Your task to perform on an android device: toggle improve location accuracy Image 0: 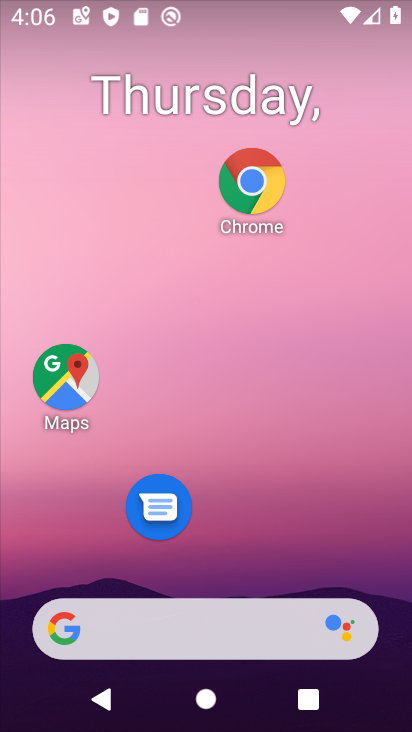
Step 0: drag from (266, 625) to (236, 251)
Your task to perform on an android device: toggle improve location accuracy Image 1: 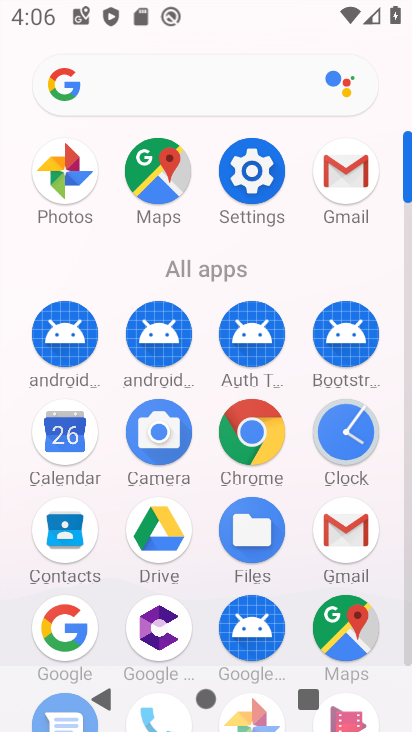
Step 1: click (253, 164)
Your task to perform on an android device: toggle improve location accuracy Image 2: 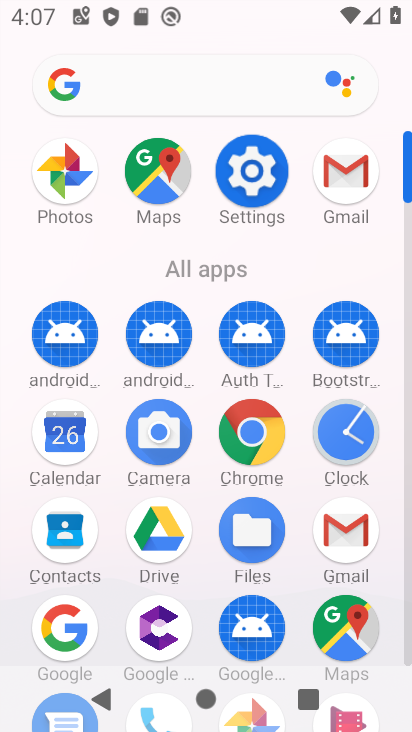
Step 2: click (256, 165)
Your task to perform on an android device: toggle improve location accuracy Image 3: 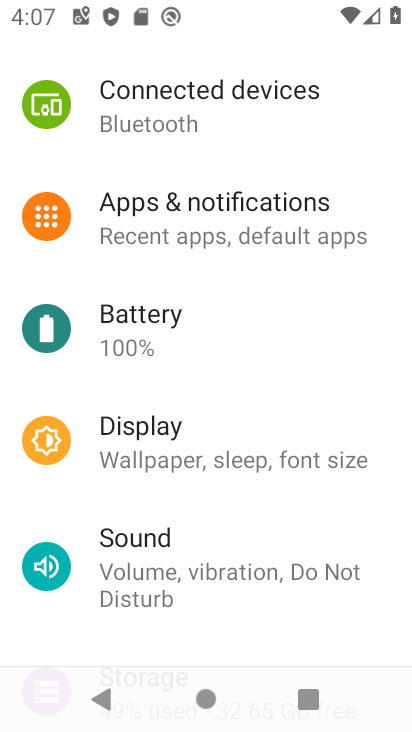
Step 3: drag from (259, 244) to (270, 156)
Your task to perform on an android device: toggle improve location accuracy Image 4: 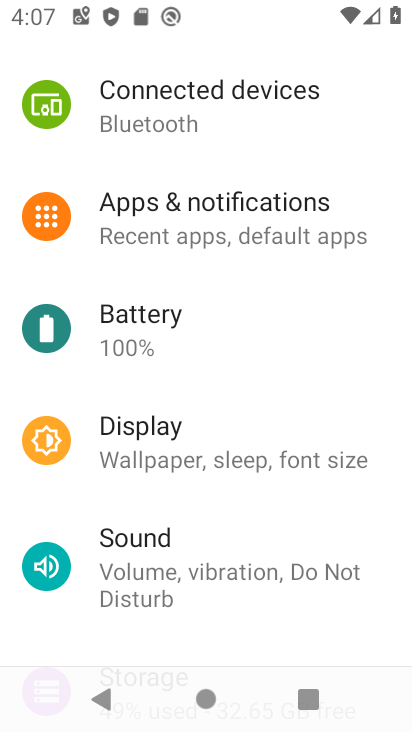
Step 4: drag from (243, 464) to (213, 151)
Your task to perform on an android device: toggle improve location accuracy Image 5: 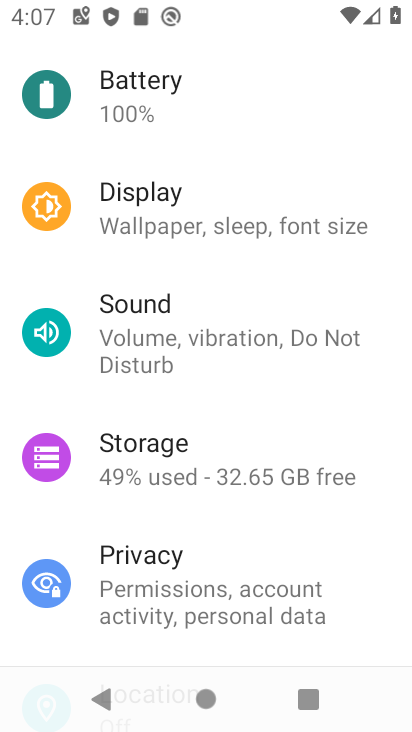
Step 5: drag from (232, 429) to (254, 232)
Your task to perform on an android device: toggle improve location accuracy Image 6: 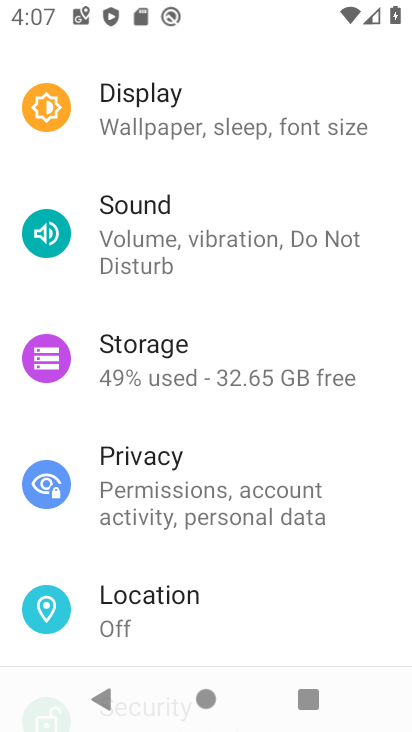
Step 6: drag from (215, 453) to (215, 138)
Your task to perform on an android device: toggle improve location accuracy Image 7: 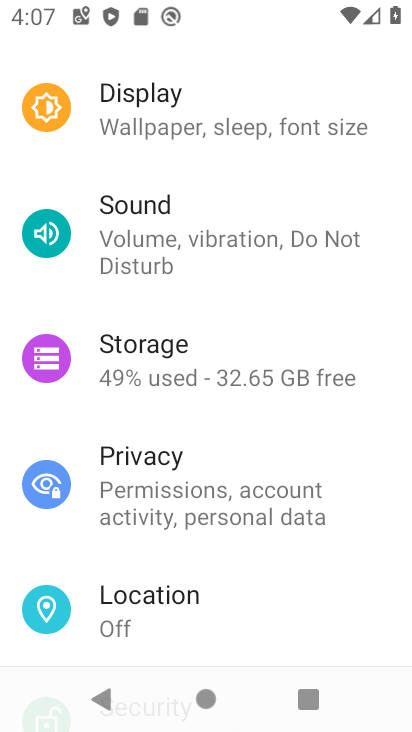
Step 7: click (245, 188)
Your task to perform on an android device: toggle improve location accuracy Image 8: 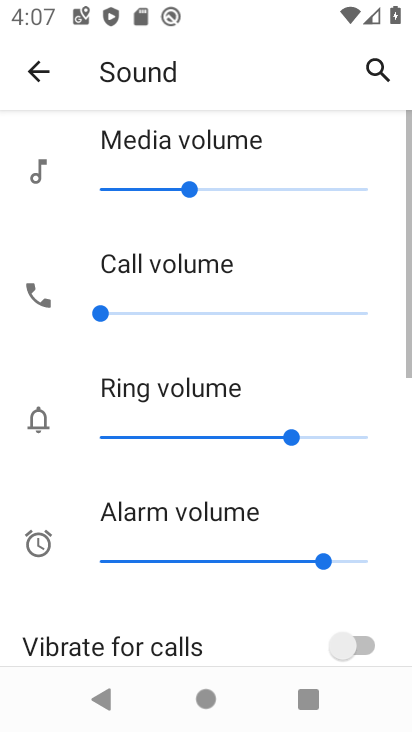
Step 8: click (125, 596)
Your task to perform on an android device: toggle improve location accuracy Image 9: 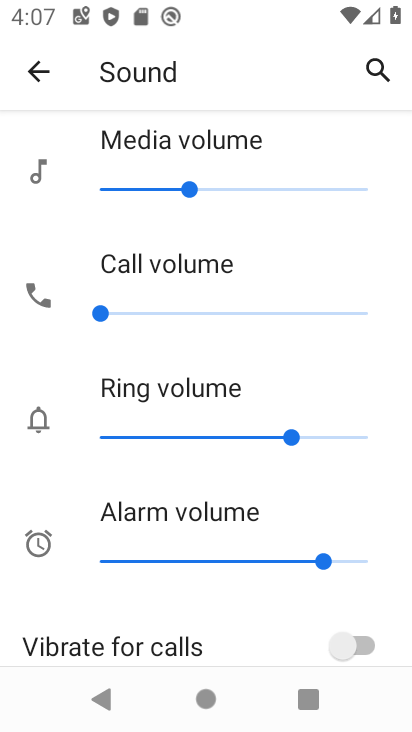
Step 9: click (53, 85)
Your task to perform on an android device: toggle improve location accuracy Image 10: 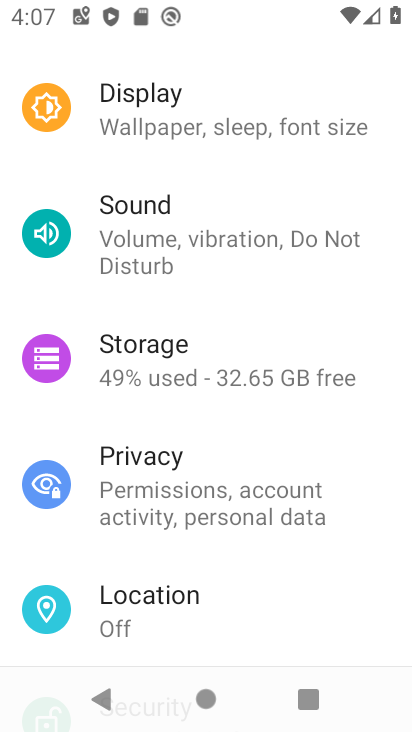
Step 10: click (127, 586)
Your task to perform on an android device: toggle improve location accuracy Image 11: 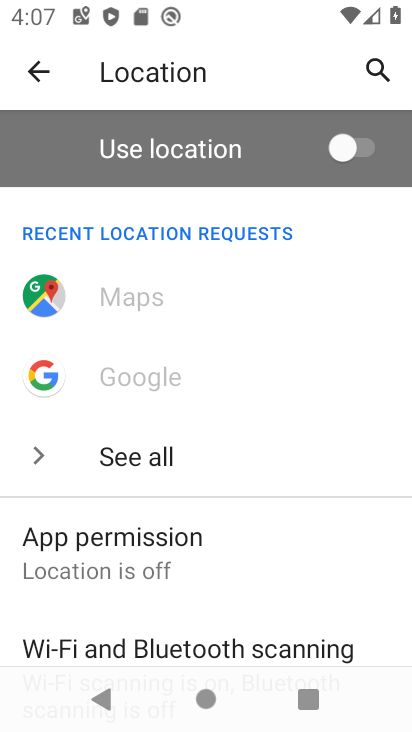
Step 11: drag from (171, 209) to (171, 68)
Your task to perform on an android device: toggle improve location accuracy Image 12: 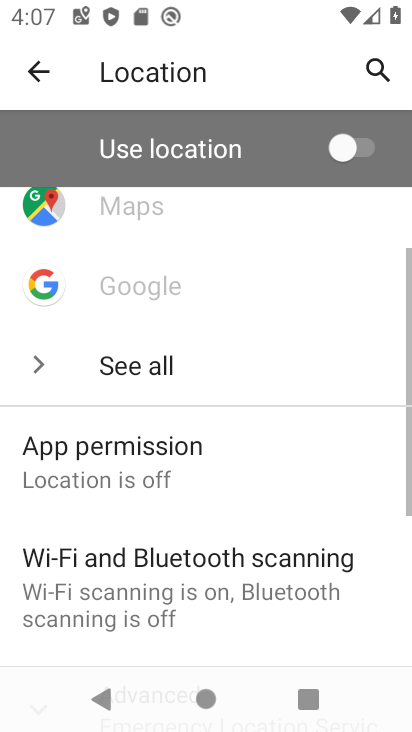
Step 12: drag from (213, 383) to (213, 18)
Your task to perform on an android device: toggle improve location accuracy Image 13: 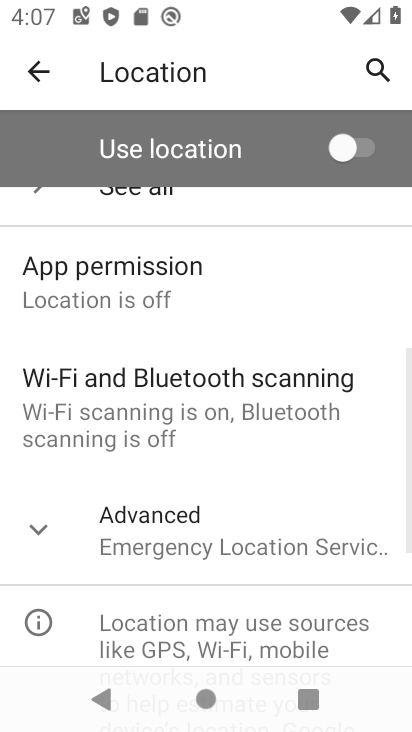
Step 13: click (350, 140)
Your task to perform on an android device: toggle improve location accuracy Image 14: 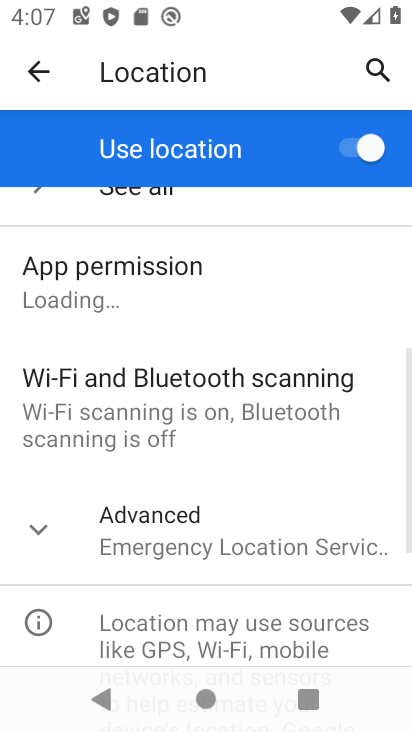
Step 14: click (368, 140)
Your task to perform on an android device: toggle improve location accuracy Image 15: 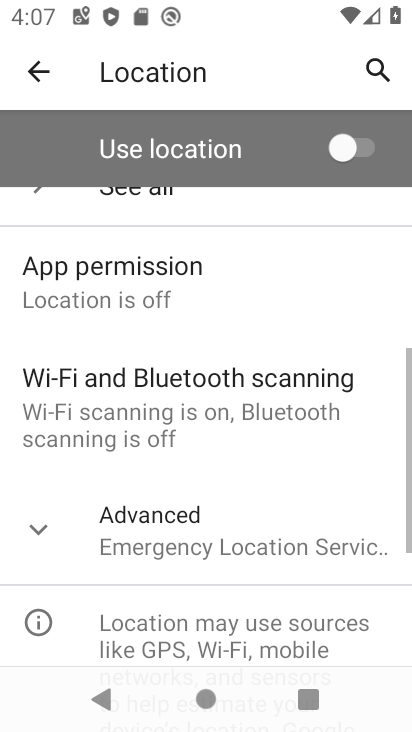
Step 15: drag from (163, 538) to (170, 117)
Your task to perform on an android device: toggle improve location accuracy Image 16: 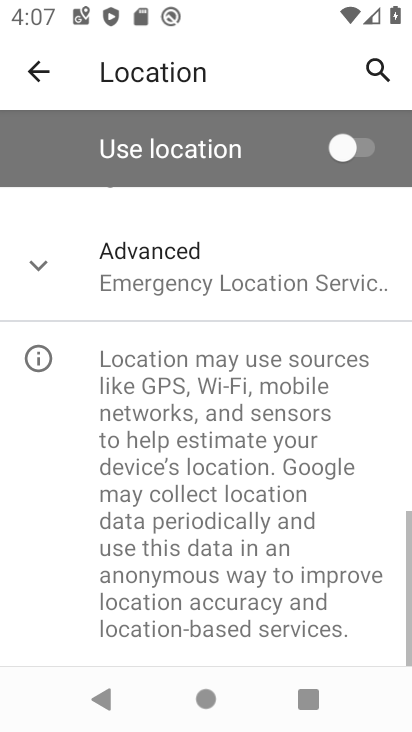
Step 16: drag from (218, 452) to (238, 129)
Your task to perform on an android device: toggle improve location accuracy Image 17: 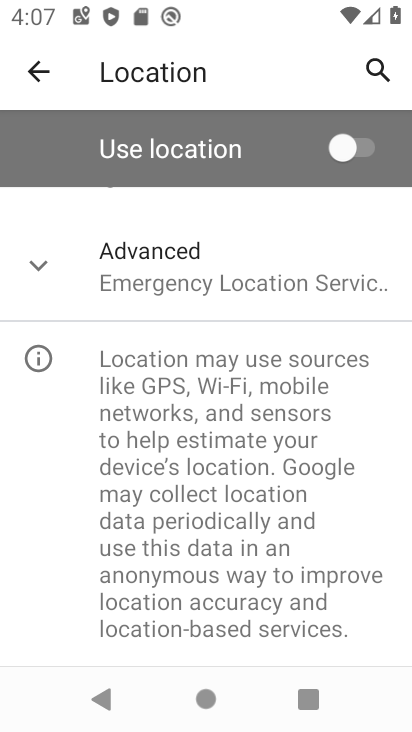
Step 17: click (181, 293)
Your task to perform on an android device: toggle improve location accuracy Image 18: 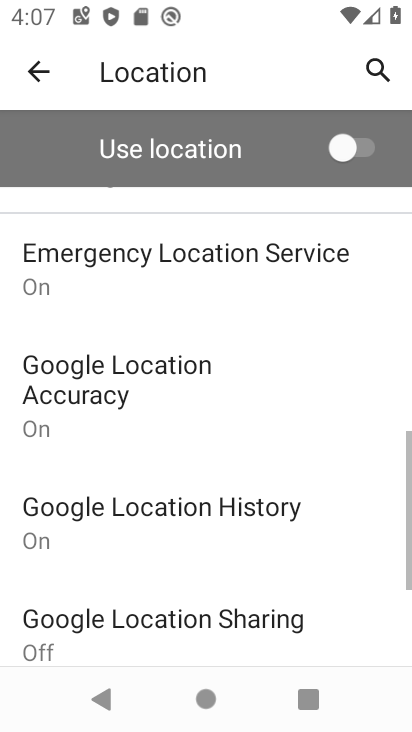
Step 18: click (181, 293)
Your task to perform on an android device: toggle improve location accuracy Image 19: 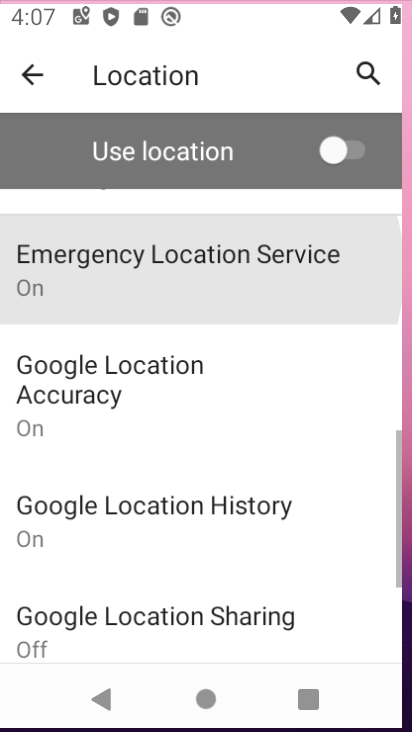
Step 19: click (176, 295)
Your task to perform on an android device: toggle improve location accuracy Image 20: 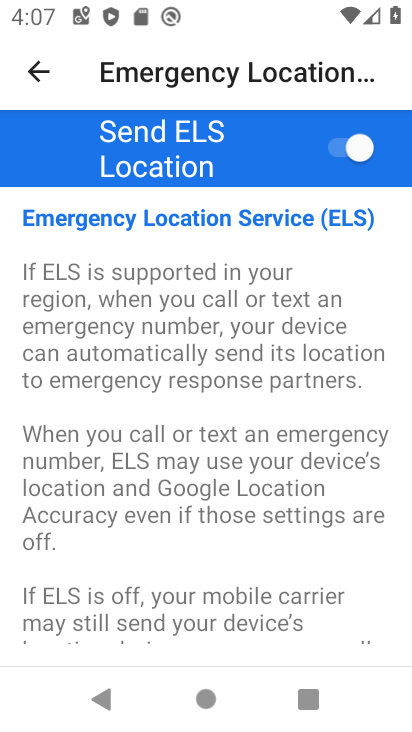
Step 20: click (45, 71)
Your task to perform on an android device: toggle improve location accuracy Image 21: 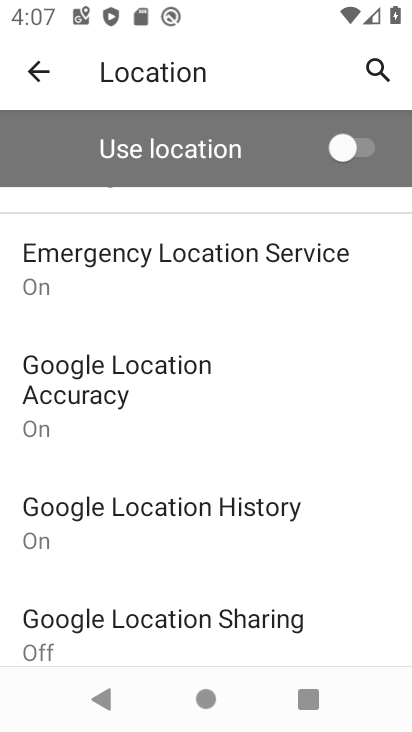
Step 21: drag from (169, 584) to (206, 252)
Your task to perform on an android device: toggle improve location accuracy Image 22: 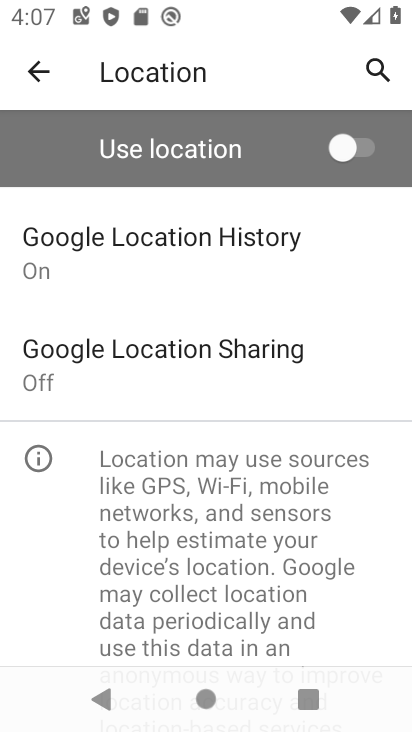
Step 22: drag from (155, 244) to (214, 557)
Your task to perform on an android device: toggle improve location accuracy Image 23: 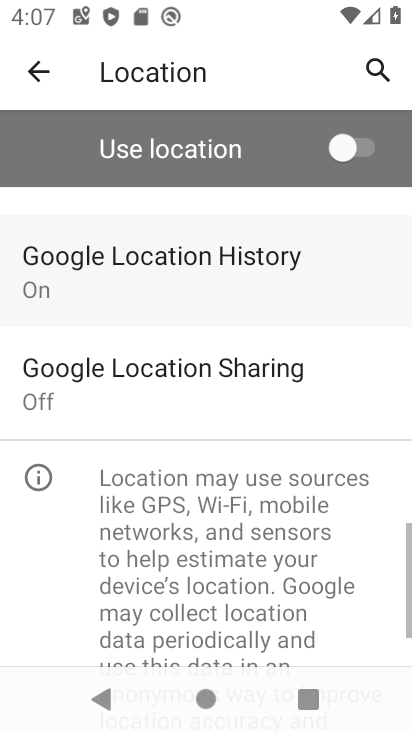
Step 23: drag from (209, 522) to (176, 616)
Your task to perform on an android device: toggle improve location accuracy Image 24: 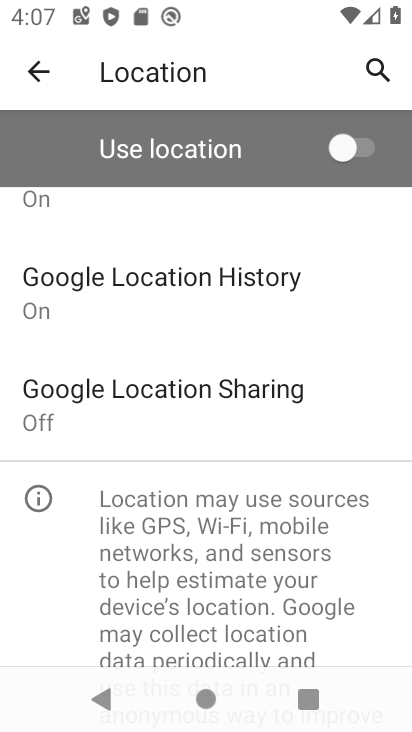
Step 24: click (188, 558)
Your task to perform on an android device: toggle improve location accuracy Image 25: 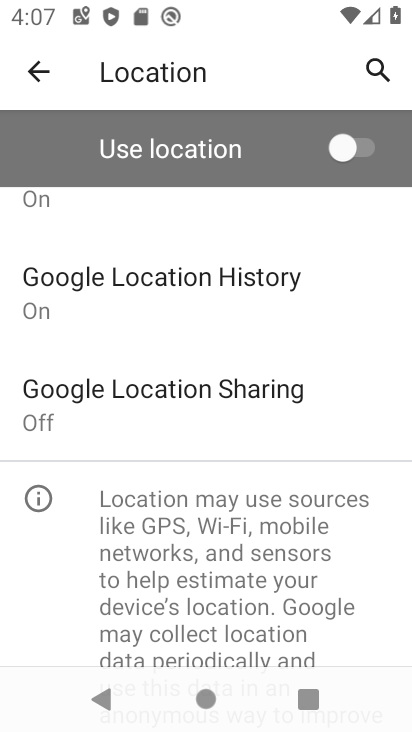
Step 25: drag from (163, 379) to (190, 491)
Your task to perform on an android device: toggle improve location accuracy Image 26: 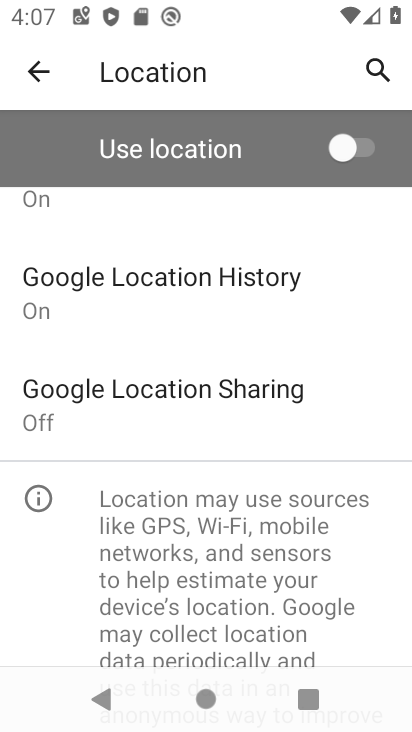
Step 26: drag from (158, 264) to (186, 460)
Your task to perform on an android device: toggle improve location accuracy Image 27: 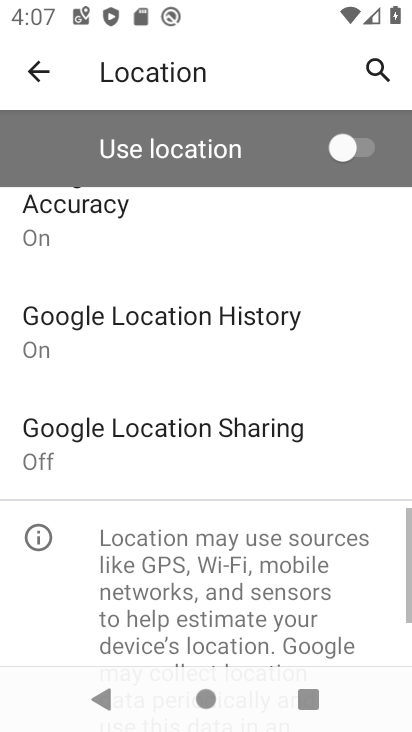
Step 27: drag from (193, 336) to (223, 554)
Your task to perform on an android device: toggle improve location accuracy Image 28: 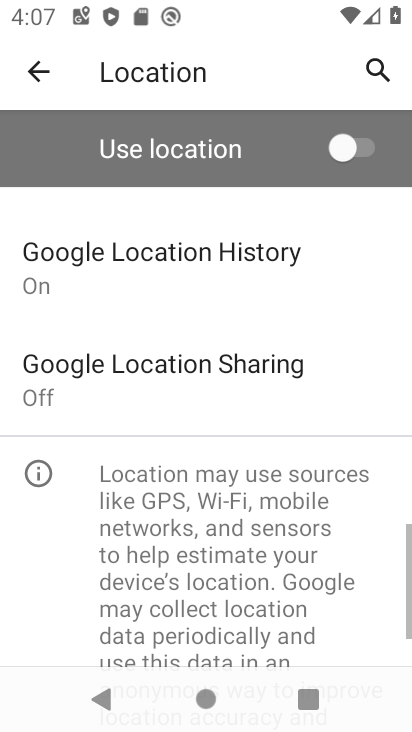
Step 28: drag from (162, 352) to (170, 543)
Your task to perform on an android device: toggle improve location accuracy Image 29: 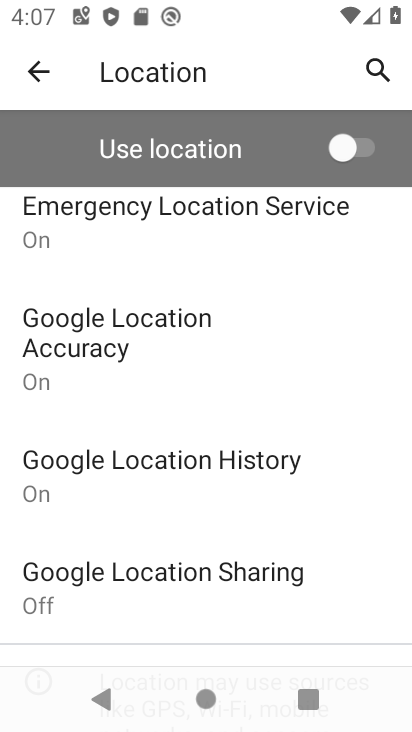
Step 29: click (93, 340)
Your task to perform on an android device: toggle improve location accuracy Image 30: 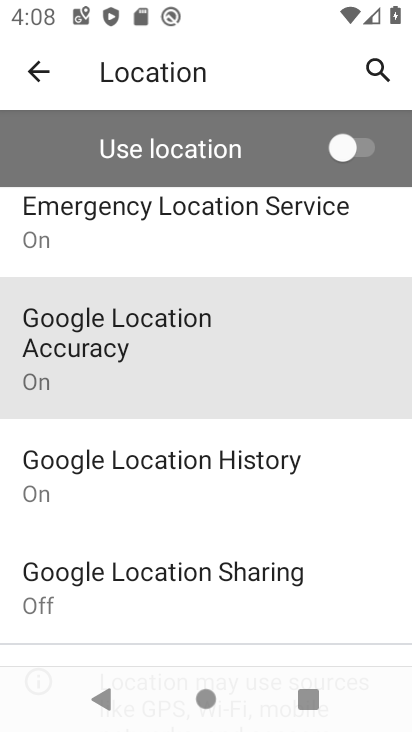
Step 30: click (93, 340)
Your task to perform on an android device: toggle improve location accuracy Image 31: 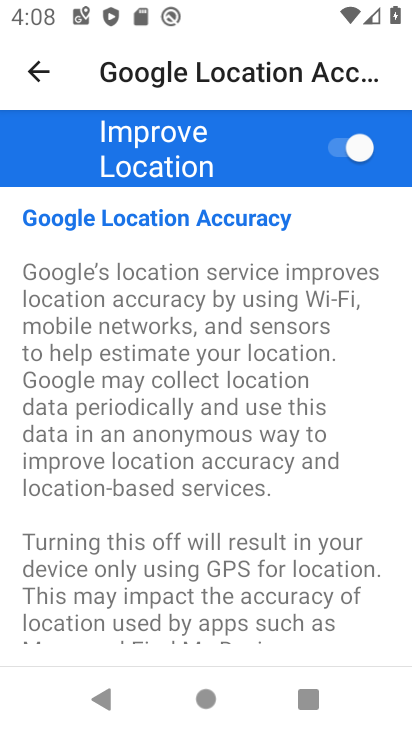
Step 31: click (364, 138)
Your task to perform on an android device: toggle improve location accuracy Image 32: 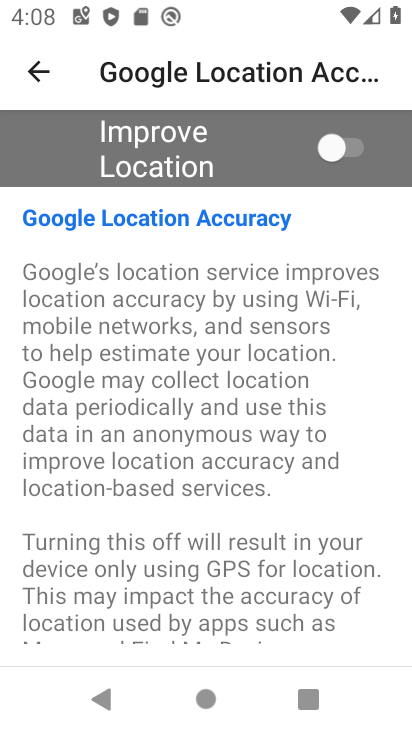
Step 32: click (361, 138)
Your task to perform on an android device: toggle improve location accuracy Image 33: 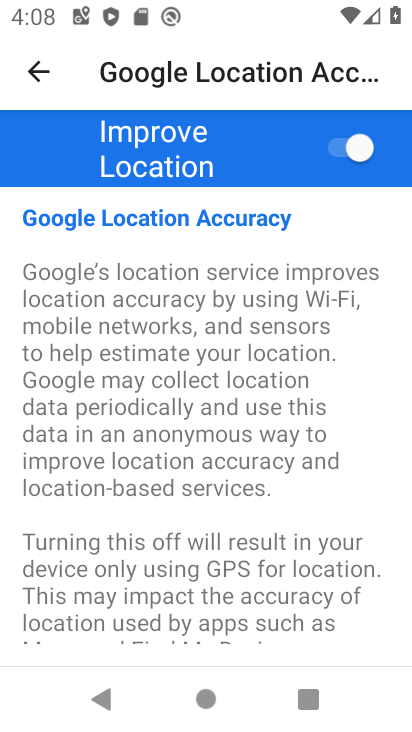
Step 33: task complete